Your task to perform on an android device: turn off improve location accuracy Image 0: 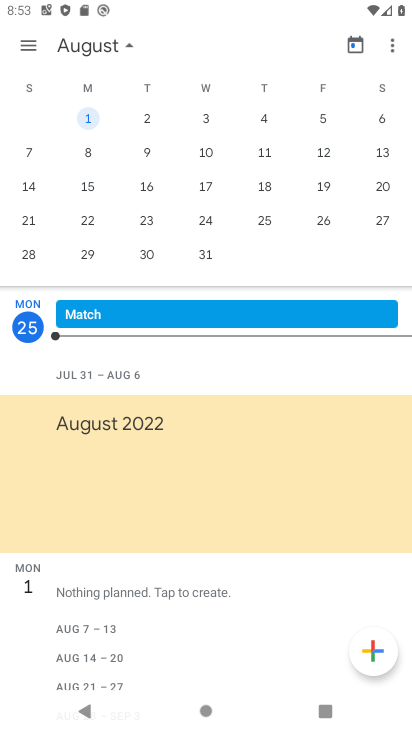
Step 0: press home button
Your task to perform on an android device: turn off improve location accuracy Image 1: 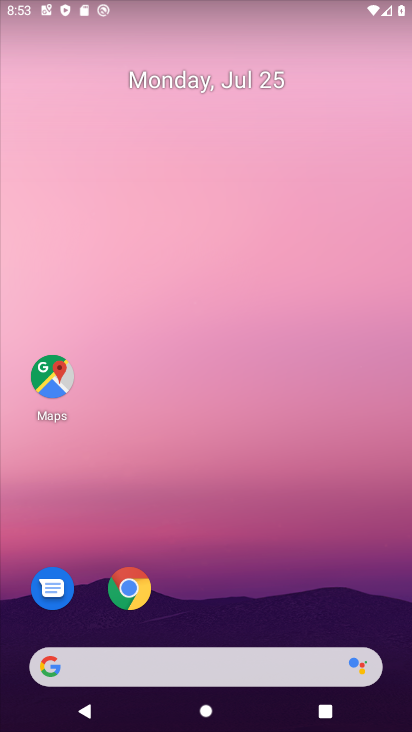
Step 1: drag from (146, 639) to (295, 59)
Your task to perform on an android device: turn off improve location accuracy Image 2: 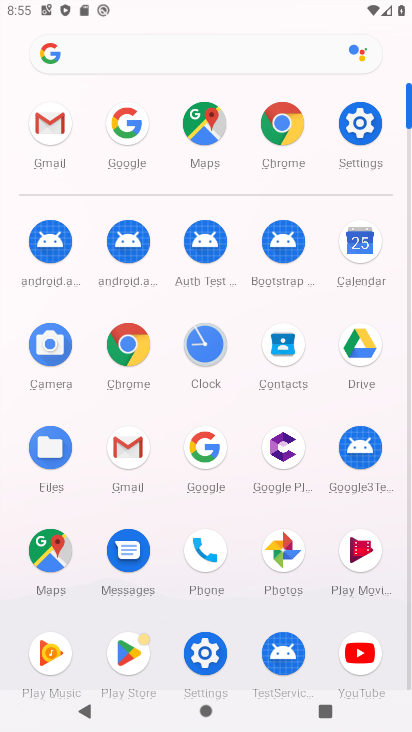
Step 2: click (357, 120)
Your task to perform on an android device: turn off improve location accuracy Image 3: 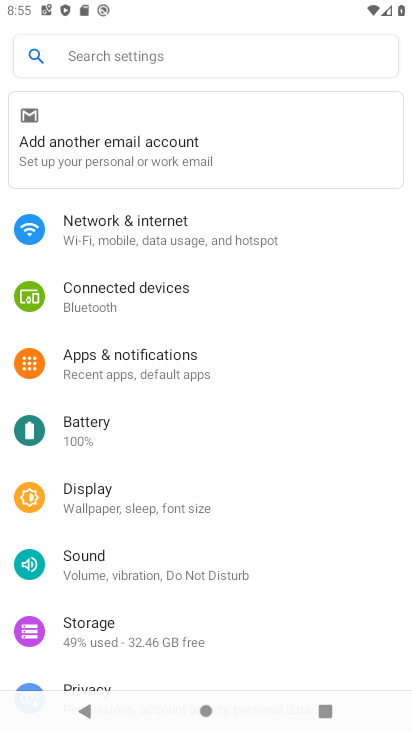
Step 3: drag from (160, 658) to (175, 233)
Your task to perform on an android device: turn off improve location accuracy Image 4: 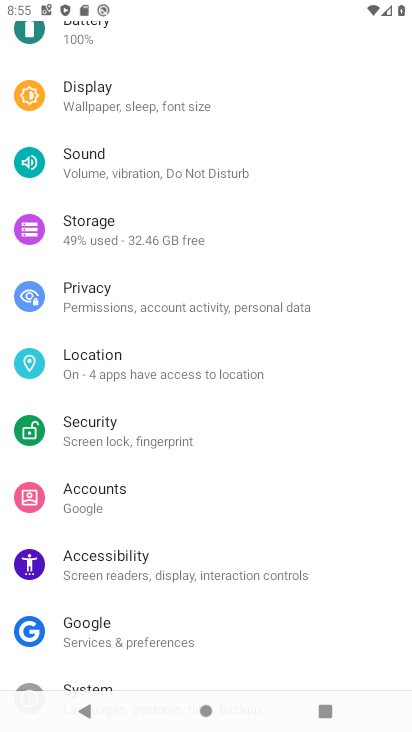
Step 4: click (120, 355)
Your task to perform on an android device: turn off improve location accuracy Image 5: 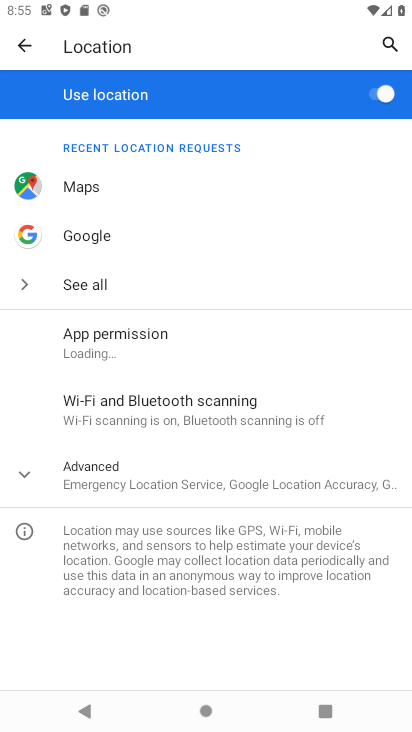
Step 5: click (137, 478)
Your task to perform on an android device: turn off improve location accuracy Image 6: 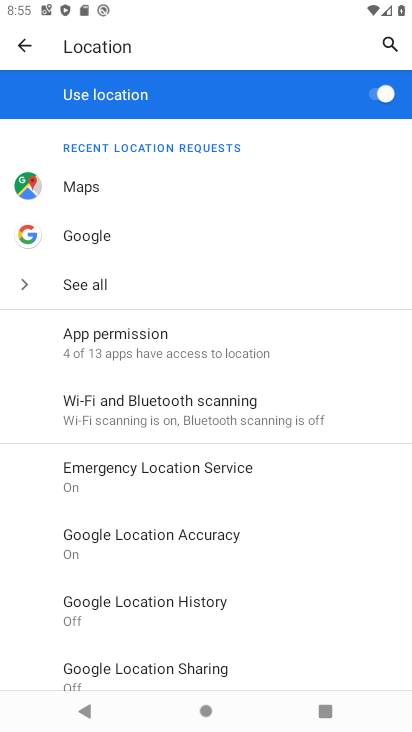
Step 6: click (197, 544)
Your task to perform on an android device: turn off improve location accuracy Image 7: 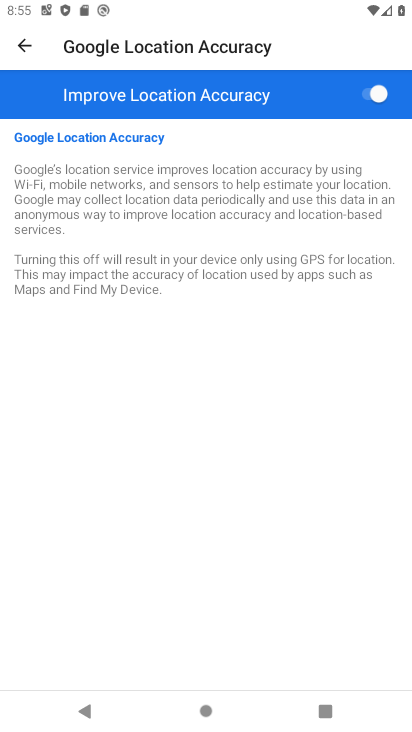
Step 7: click (373, 94)
Your task to perform on an android device: turn off improve location accuracy Image 8: 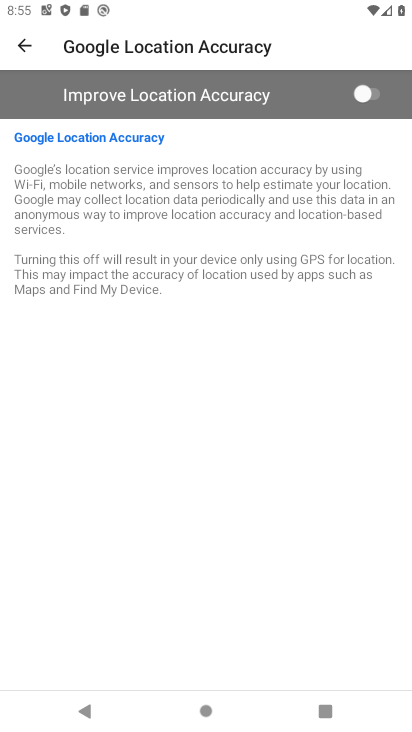
Step 8: task complete